Your task to perform on an android device: show emergency info Image 0: 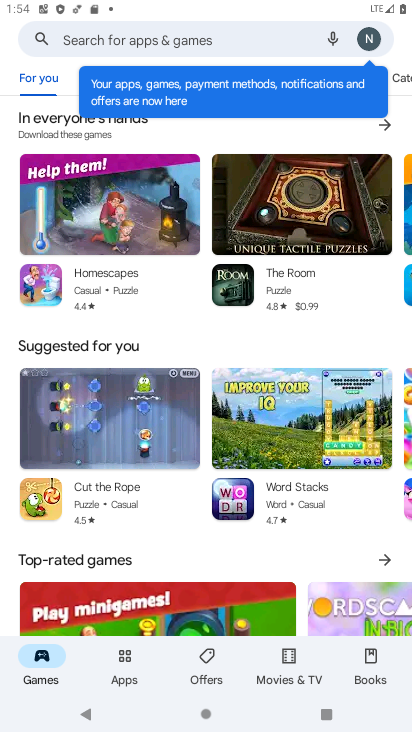
Step 0: press home button
Your task to perform on an android device: show emergency info Image 1: 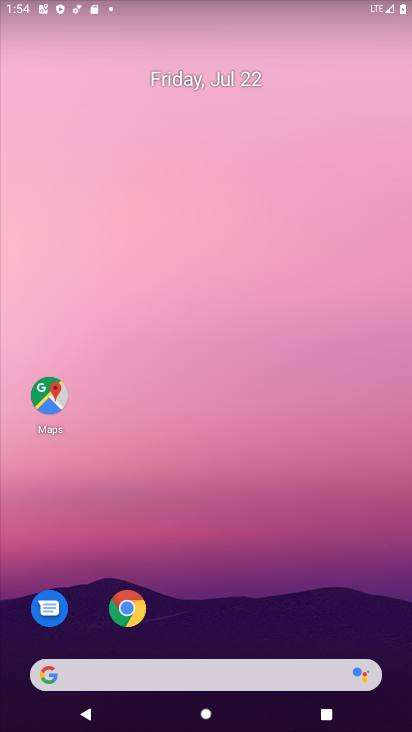
Step 1: drag from (246, 715) to (245, 201)
Your task to perform on an android device: show emergency info Image 2: 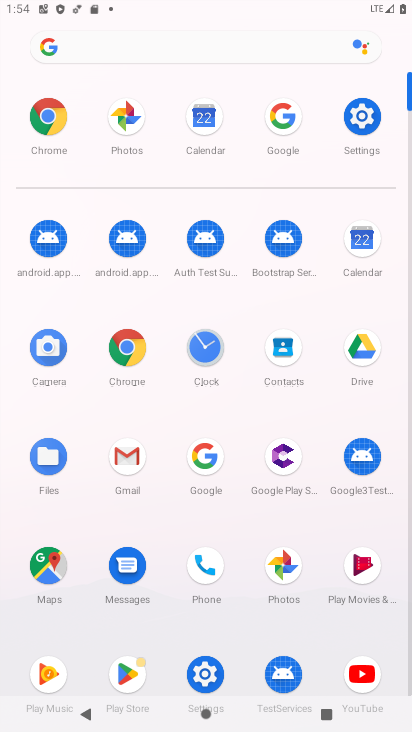
Step 2: click (368, 118)
Your task to perform on an android device: show emergency info Image 3: 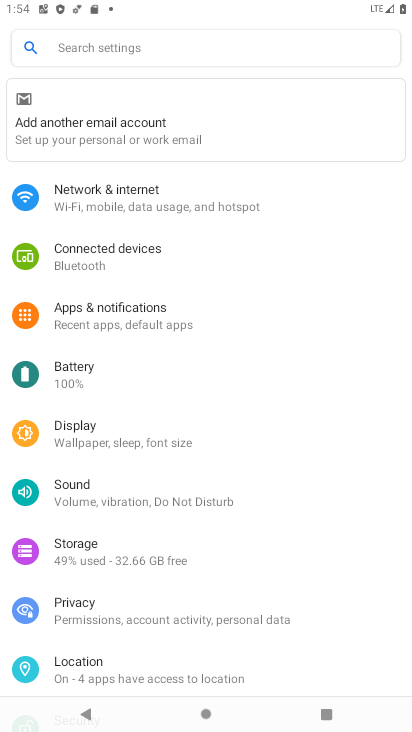
Step 3: drag from (146, 661) to (106, 248)
Your task to perform on an android device: show emergency info Image 4: 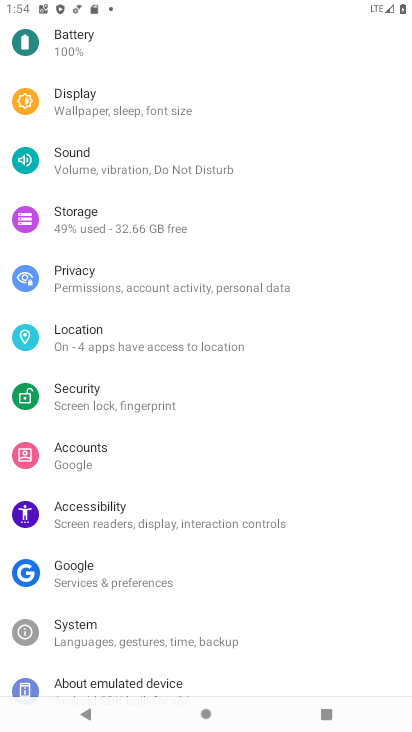
Step 4: drag from (174, 598) to (179, 269)
Your task to perform on an android device: show emergency info Image 5: 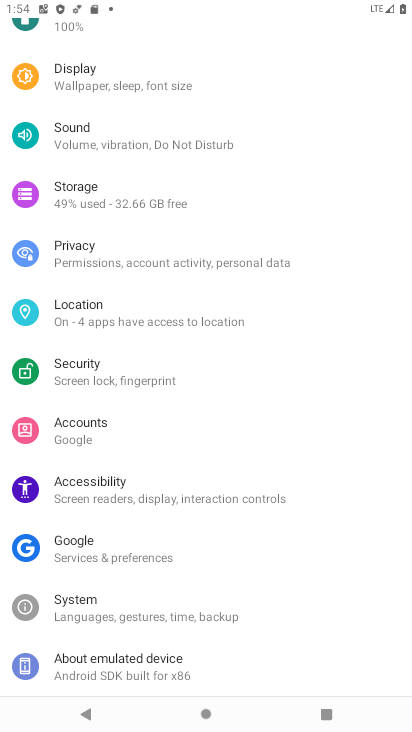
Step 5: click (144, 659)
Your task to perform on an android device: show emergency info Image 6: 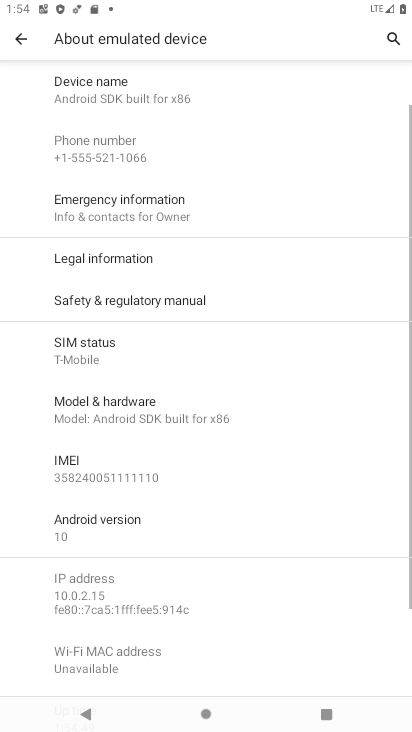
Step 6: click (134, 207)
Your task to perform on an android device: show emergency info Image 7: 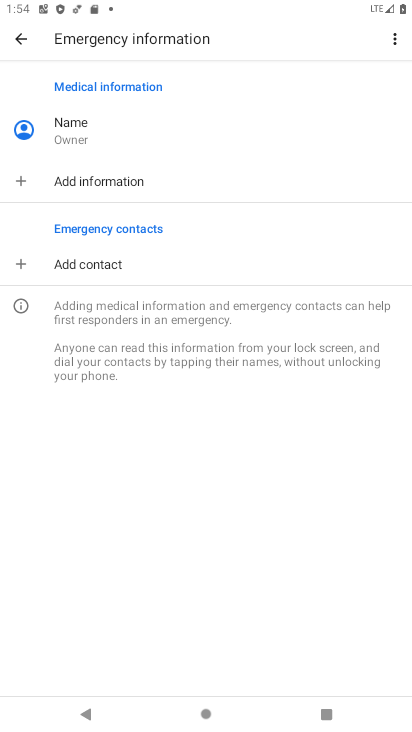
Step 7: task complete